Your task to perform on an android device: Open calendar and show me the third week of next month Image 0: 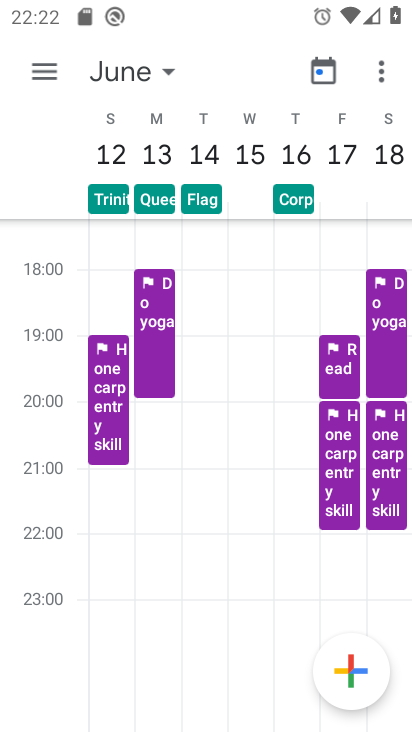
Step 0: drag from (374, 242) to (5, 276)
Your task to perform on an android device: Open calendar and show me the third week of next month Image 1: 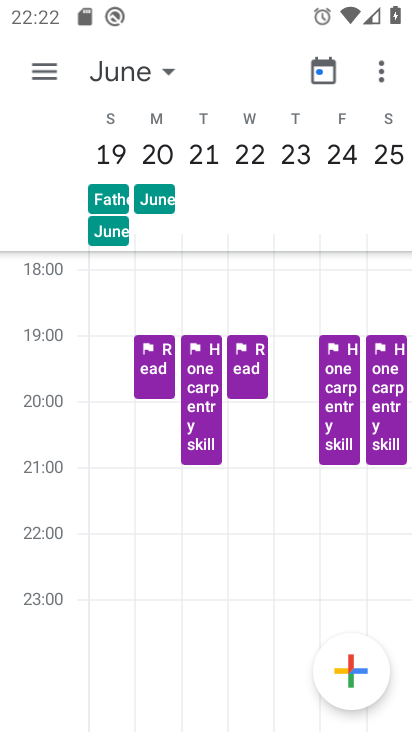
Step 1: task complete